Your task to perform on an android device: Open the stopwatch Image 0: 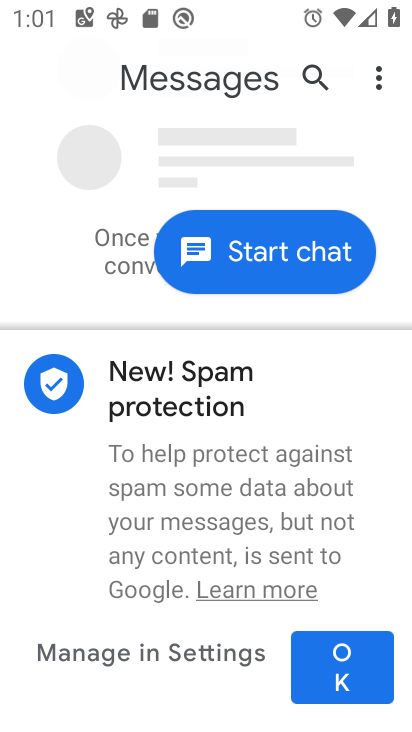
Step 0: press home button
Your task to perform on an android device: Open the stopwatch Image 1: 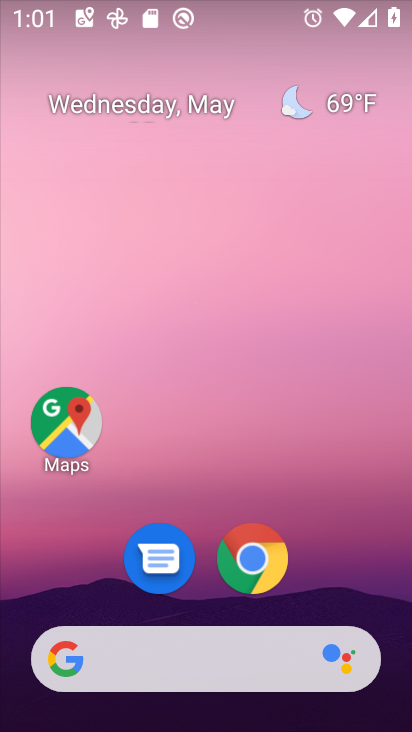
Step 1: drag from (397, 609) to (294, 33)
Your task to perform on an android device: Open the stopwatch Image 2: 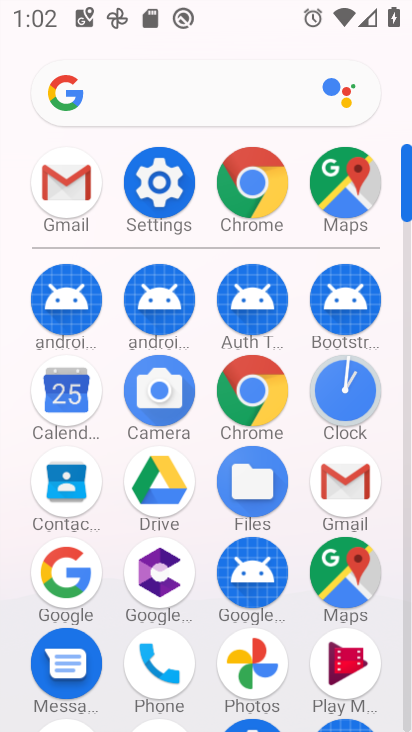
Step 2: click (333, 401)
Your task to perform on an android device: Open the stopwatch Image 3: 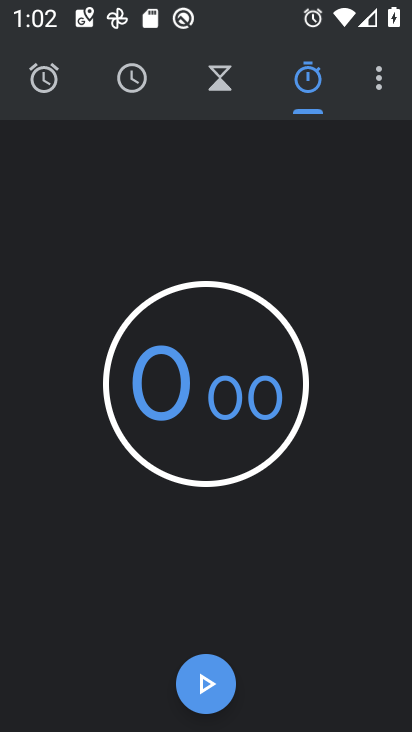
Step 3: task complete